Your task to perform on an android device: manage bookmarks in the chrome app Image 0: 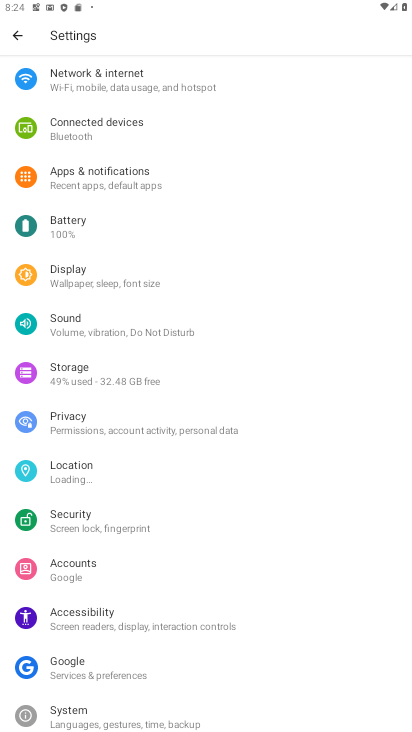
Step 0: press home button
Your task to perform on an android device: manage bookmarks in the chrome app Image 1: 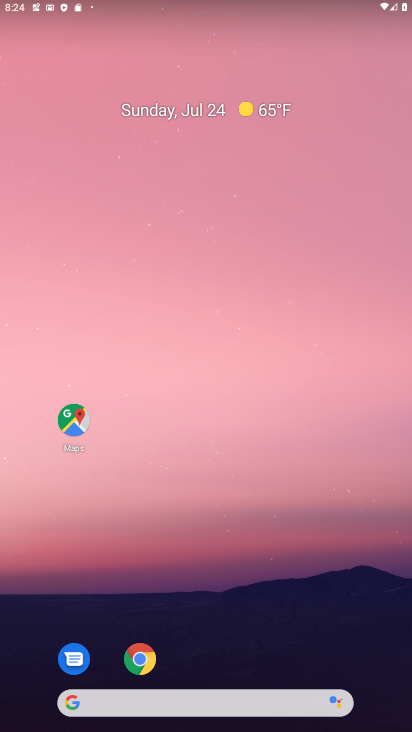
Step 1: click (143, 663)
Your task to perform on an android device: manage bookmarks in the chrome app Image 2: 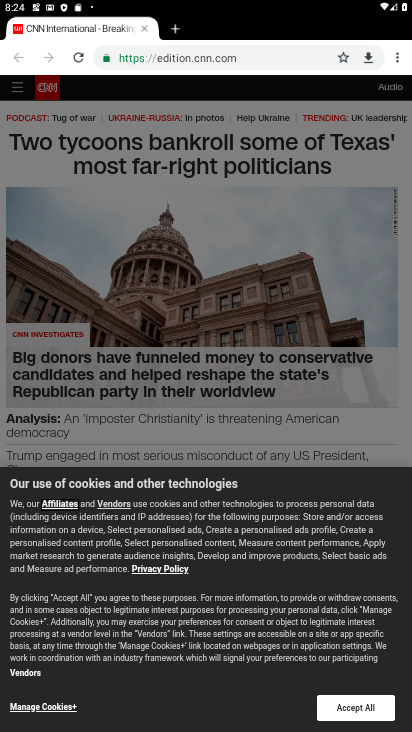
Step 2: click (401, 61)
Your task to perform on an android device: manage bookmarks in the chrome app Image 3: 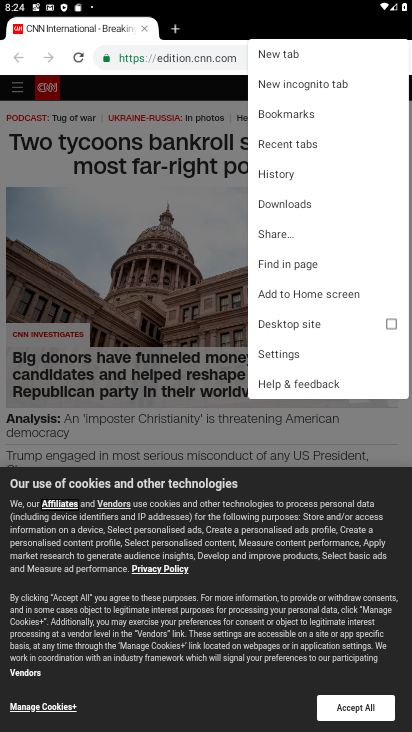
Step 3: click (288, 108)
Your task to perform on an android device: manage bookmarks in the chrome app Image 4: 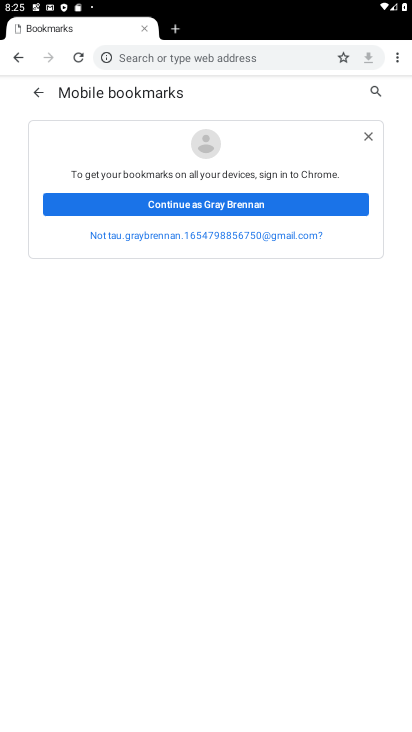
Step 4: click (215, 202)
Your task to perform on an android device: manage bookmarks in the chrome app Image 5: 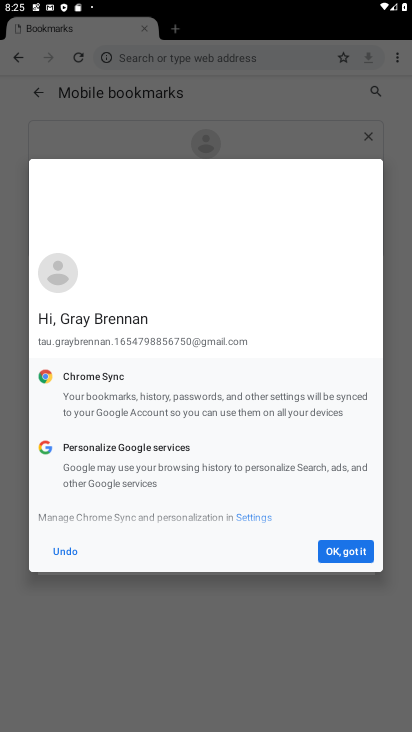
Step 5: click (352, 548)
Your task to perform on an android device: manage bookmarks in the chrome app Image 6: 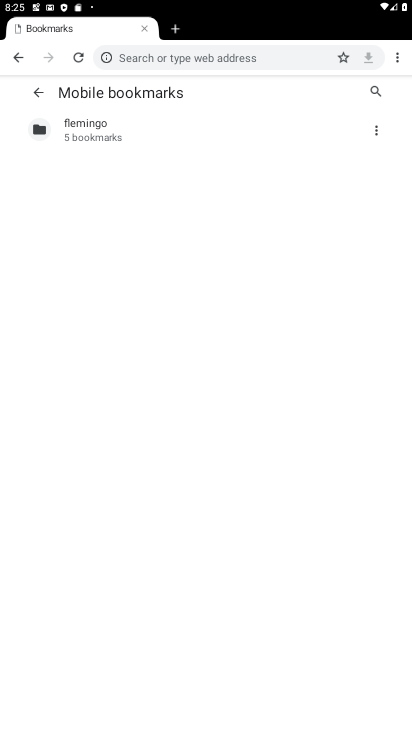
Step 6: click (90, 136)
Your task to perform on an android device: manage bookmarks in the chrome app Image 7: 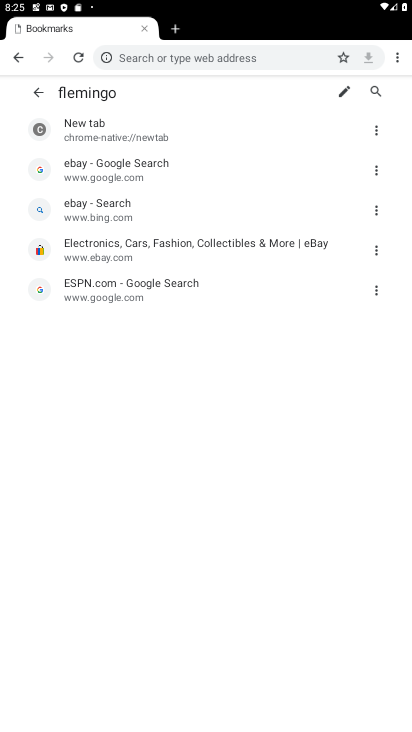
Step 7: click (377, 291)
Your task to perform on an android device: manage bookmarks in the chrome app Image 8: 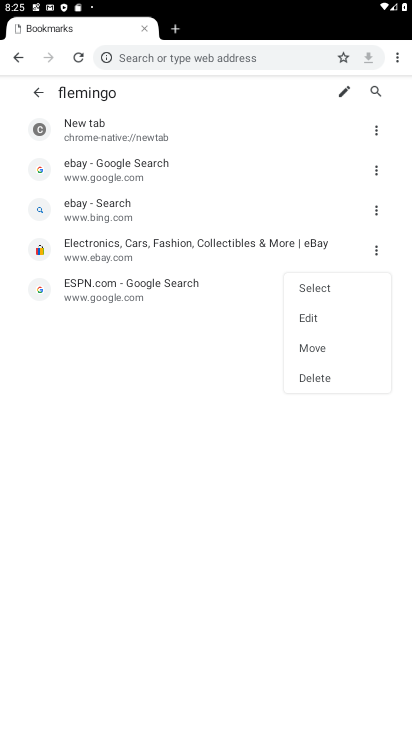
Step 8: click (317, 346)
Your task to perform on an android device: manage bookmarks in the chrome app Image 9: 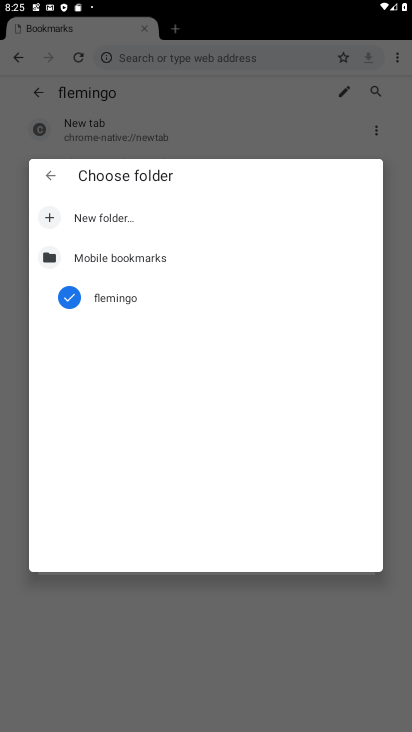
Step 9: click (85, 225)
Your task to perform on an android device: manage bookmarks in the chrome app Image 10: 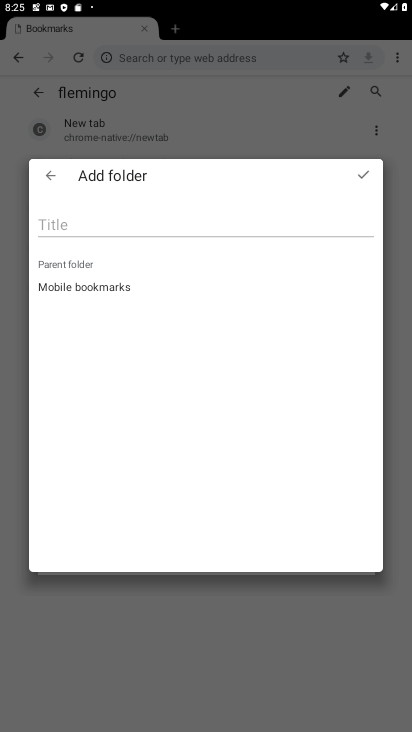
Step 10: click (85, 225)
Your task to perform on an android device: manage bookmarks in the chrome app Image 11: 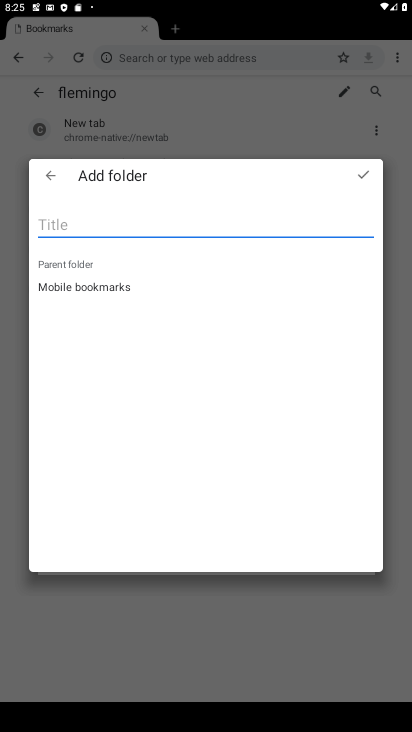
Step 11: type "my folder"
Your task to perform on an android device: manage bookmarks in the chrome app Image 12: 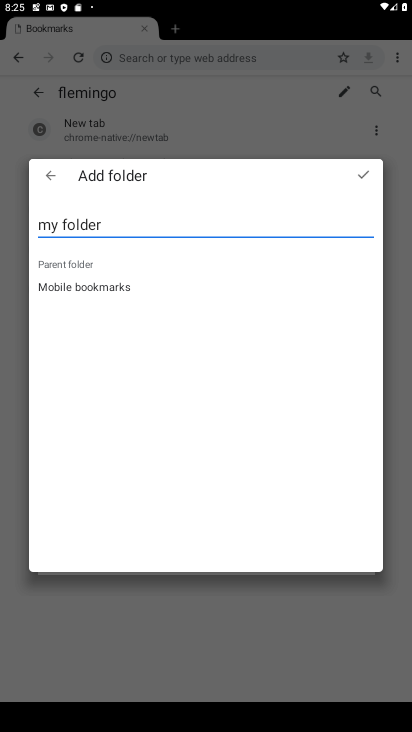
Step 12: click (373, 173)
Your task to perform on an android device: manage bookmarks in the chrome app Image 13: 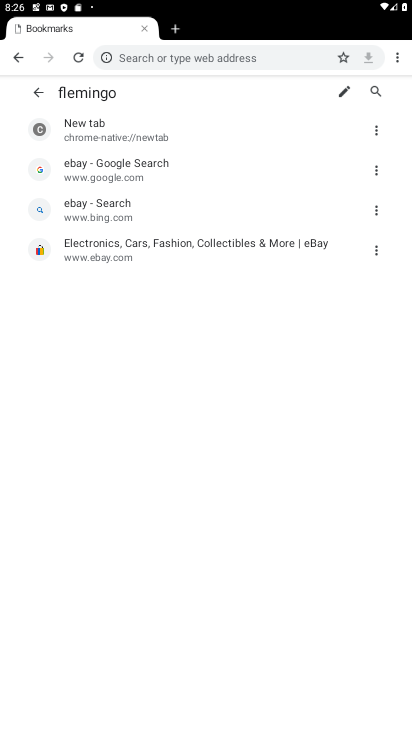
Step 13: task complete